Your task to perform on an android device: install app "Microsoft Authenticator" Image 0: 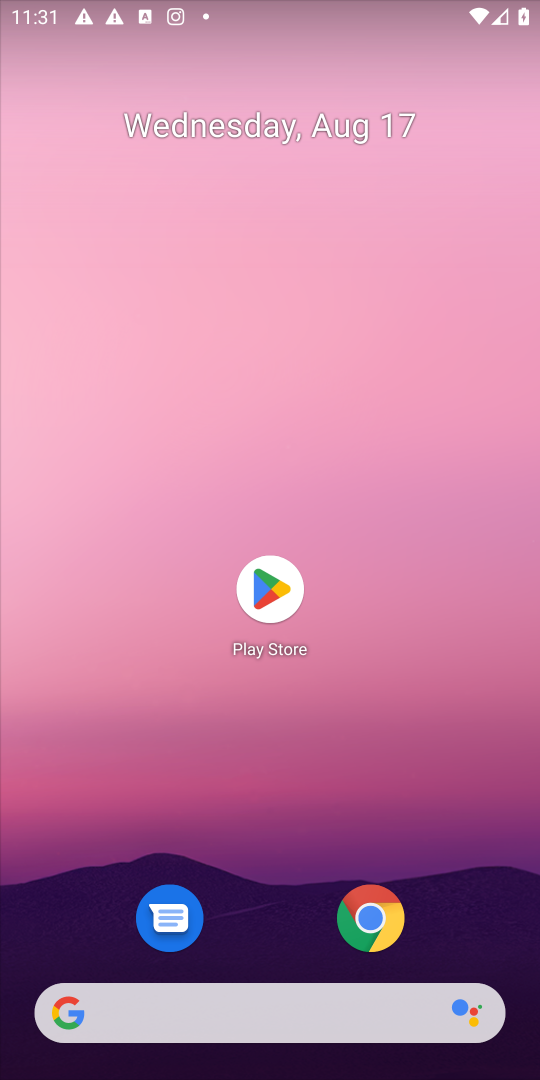
Step 0: click (273, 586)
Your task to perform on an android device: install app "Microsoft Authenticator" Image 1: 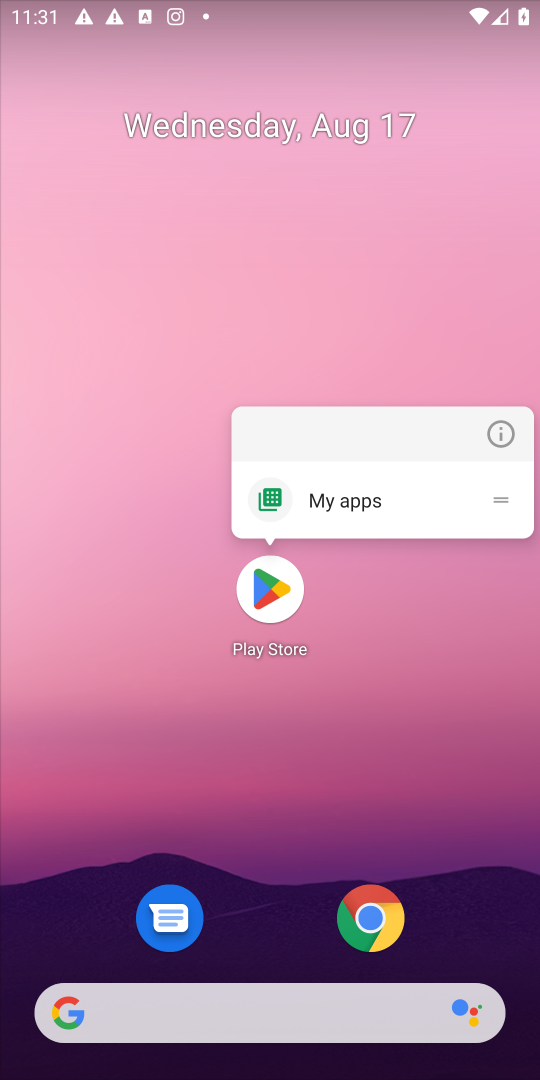
Step 1: click (267, 591)
Your task to perform on an android device: install app "Microsoft Authenticator" Image 2: 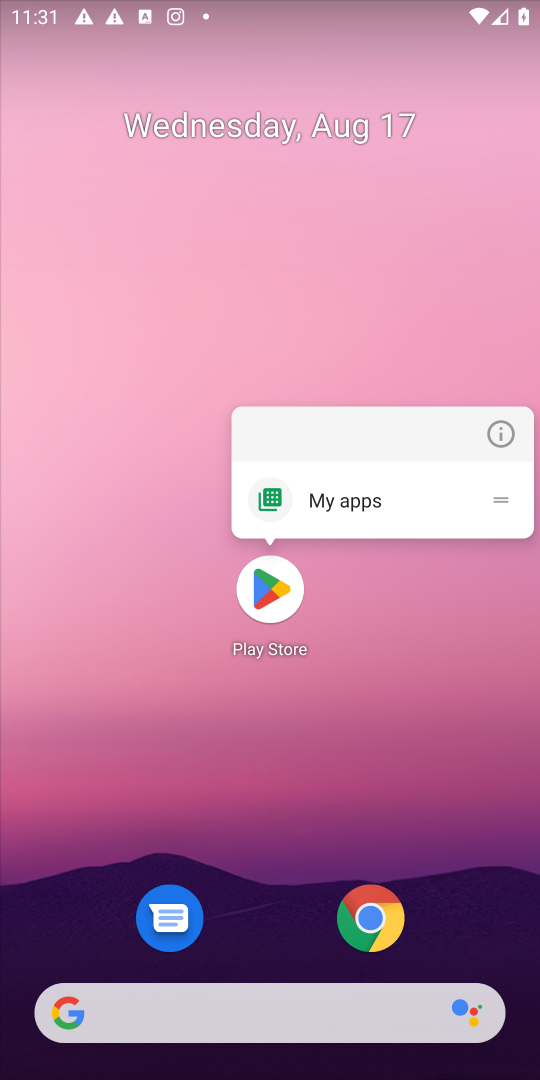
Step 2: click (267, 591)
Your task to perform on an android device: install app "Microsoft Authenticator" Image 3: 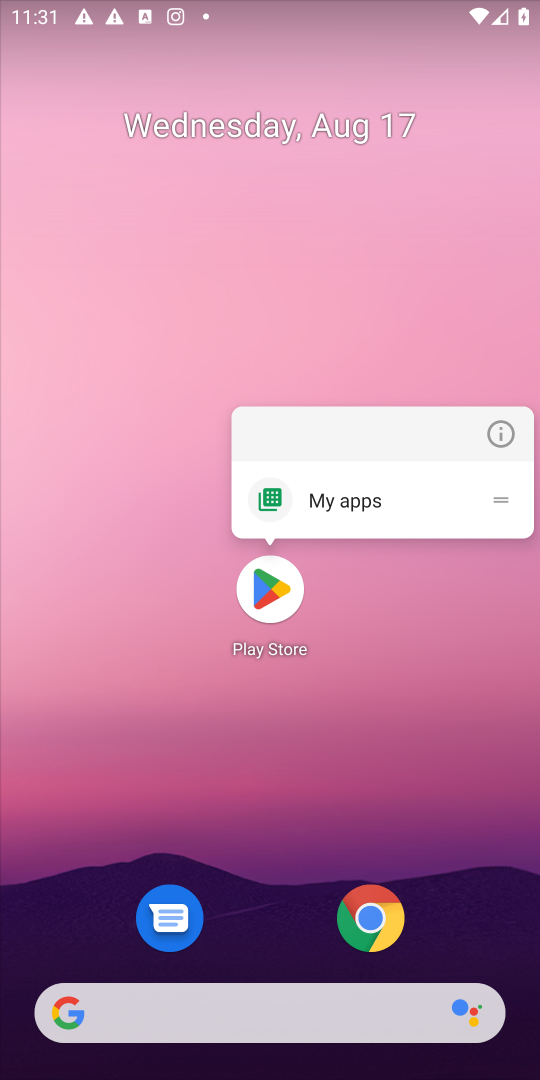
Step 3: click (268, 593)
Your task to perform on an android device: install app "Microsoft Authenticator" Image 4: 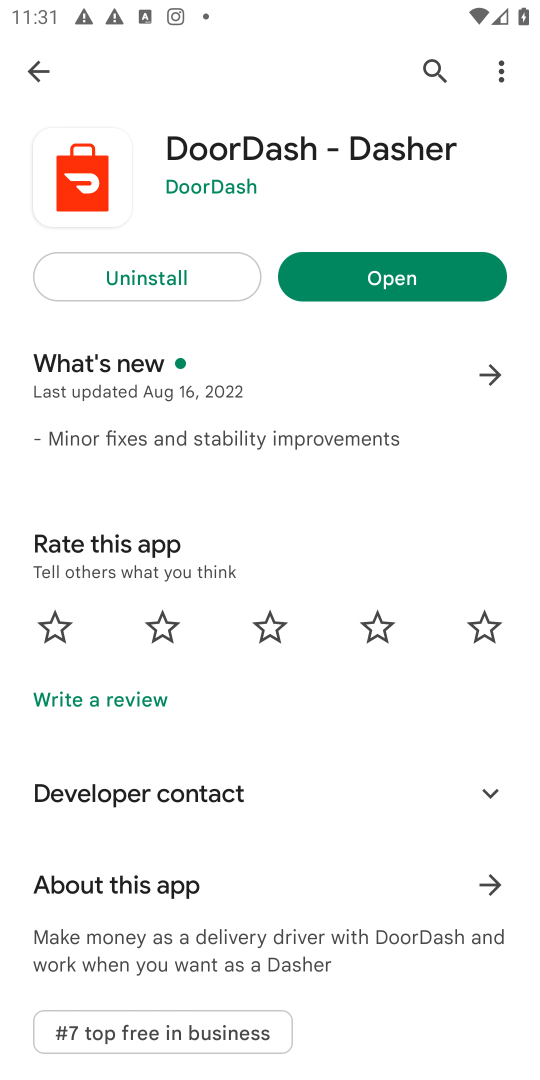
Step 4: click (431, 61)
Your task to perform on an android device: install app "Microsoft Authenticator" Image 5: 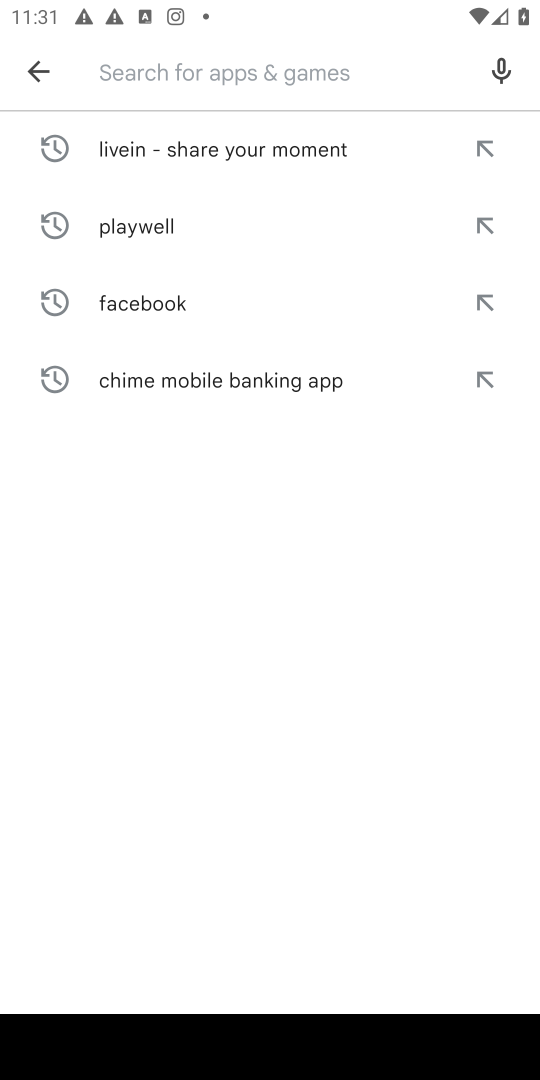
Step 5: type "Microsoft Authenticator"
Your task to perform on an android device: install app "Microsoft Authenticator" Image 6: 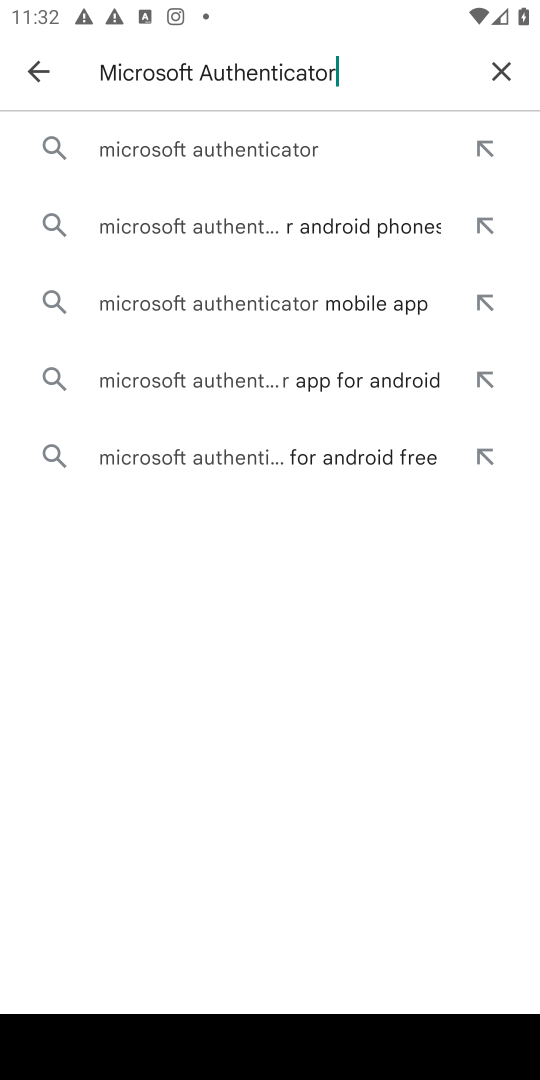
Step 6: click (263, 152)
Your task to perform on an android device: install app "Microsoft Authenticator" Image 7: 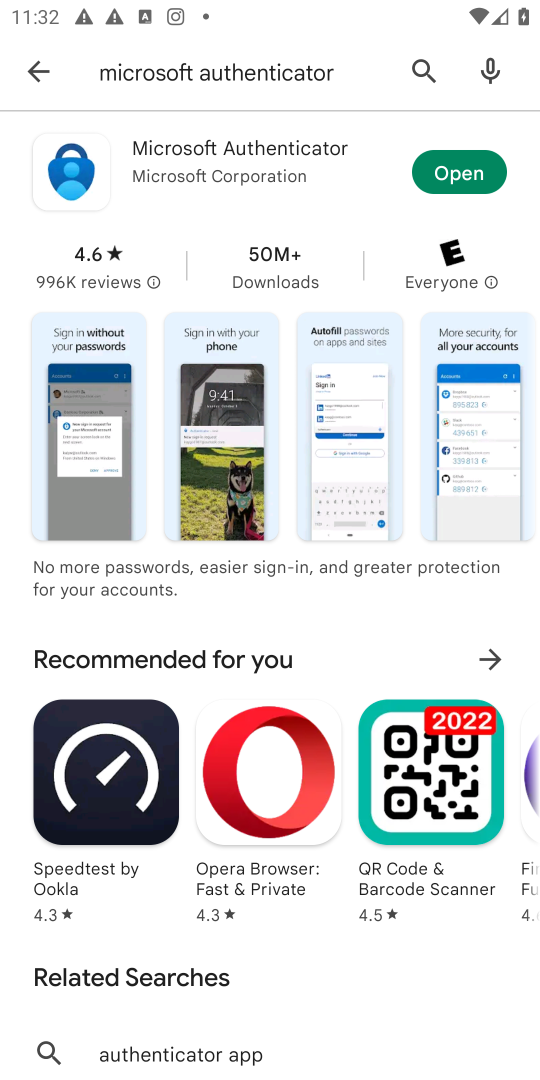
Step 7: task complete